Your task to perform on an android device: see sites visited before in the chrome app Image 0: 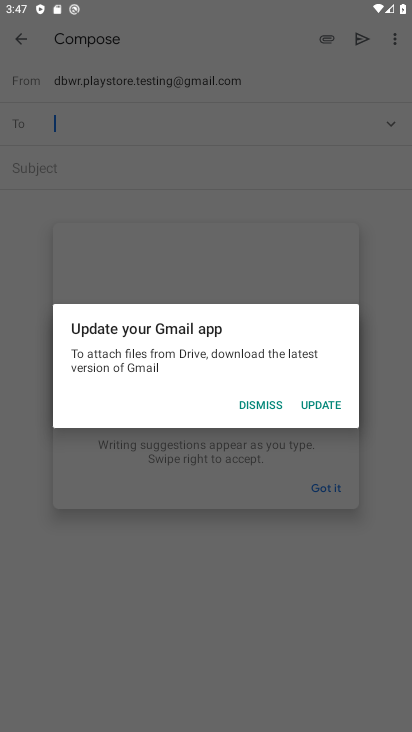
Step 0: press home button
Your task to perform on an android device: see sites visited before in the chrome app Image 1: 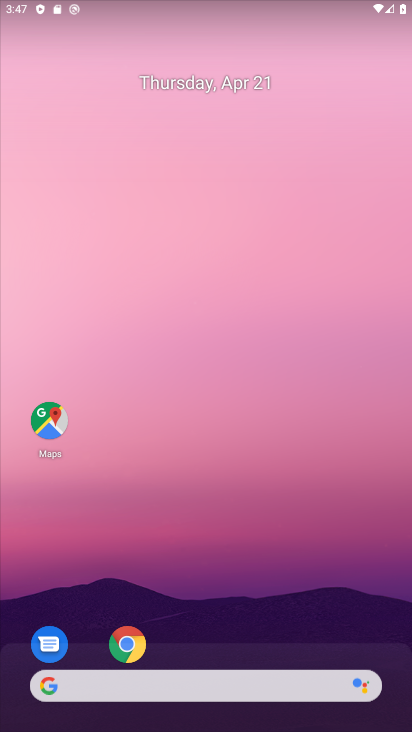
Step 1: drag from (182, 696) to (289, 248)
Your task to perform on an android device: see sites visited before in the chrome app Image 2: 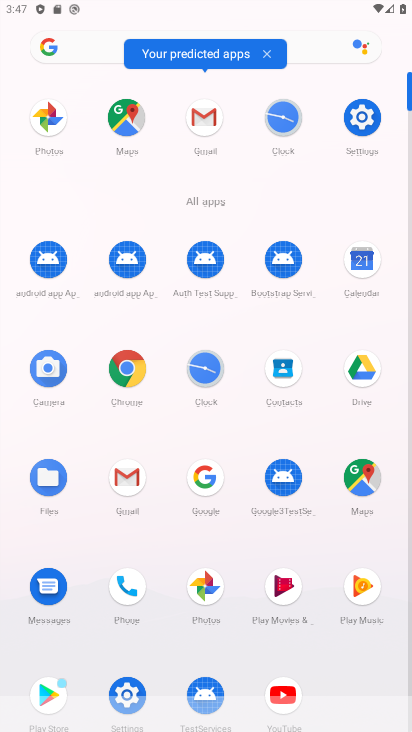
Step 2: click (123, 382)
Your task to perform on an android device: see sites visited before in the chrome app Image 3: 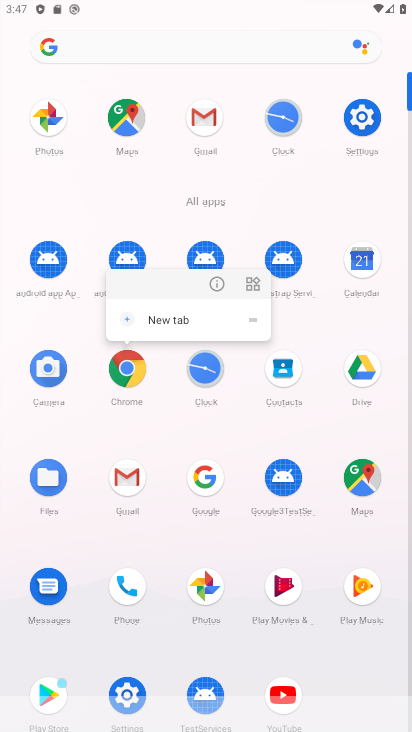
Step 3: click (127, 378)
Your task to perform on an android device: see sites visited before in the chrome app Image 4: 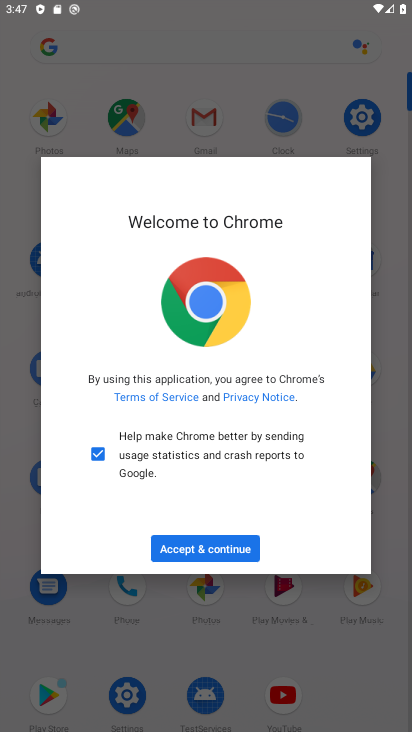
Step 4: click (200, 548)
Your task to perform on an android device: see sites visited before in the chrome app Image 5: 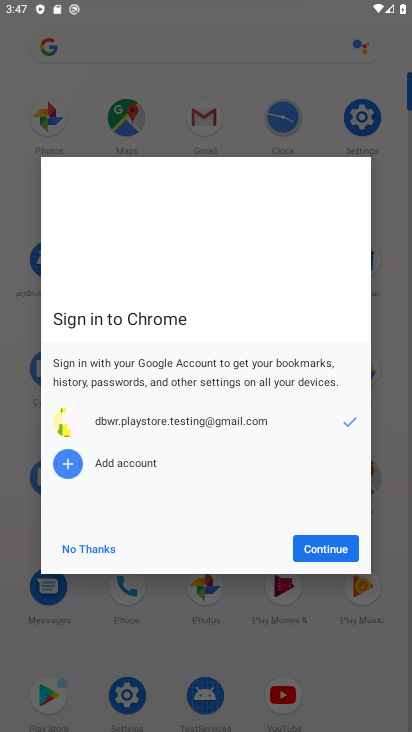
Step 5: click (328, 550)
Your task to perform on an android device: see sites visited before in the chrome app Image 6: 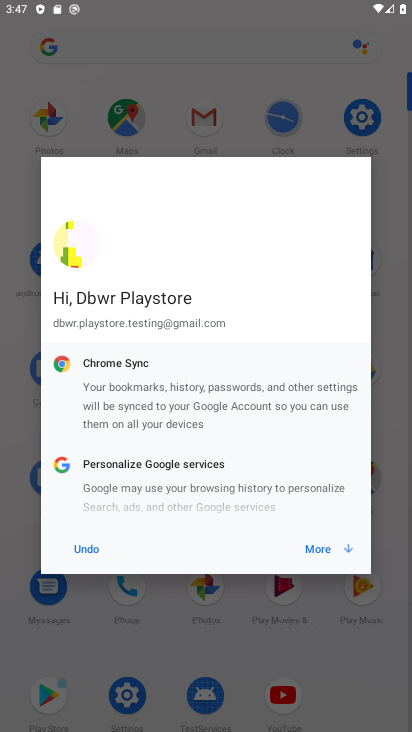
Step 6: click (328, 549)
Your task to perform on an android device: see sites visited before in the chrome app Image 7: 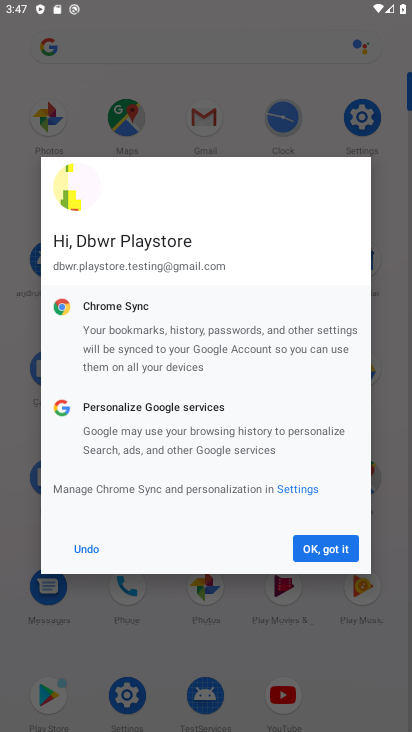
Step 7: click (328, 550)
Your task to perform on an android device: see sites visited before in the chrome app Image 8: 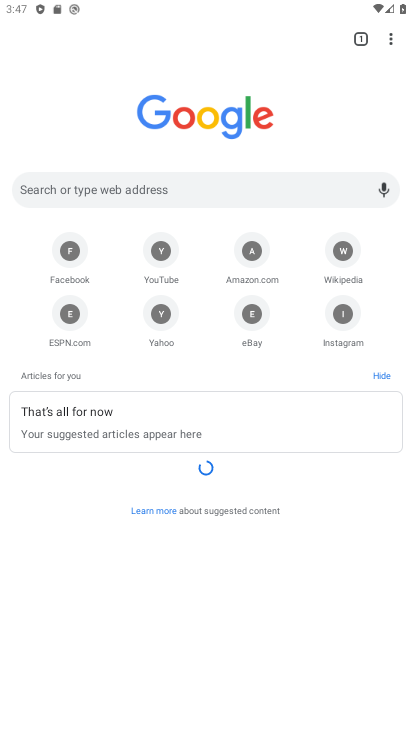
Step 8: click (383, 46)
Your task to perform on an android device: see sites visited before in the chrome app Image 9: 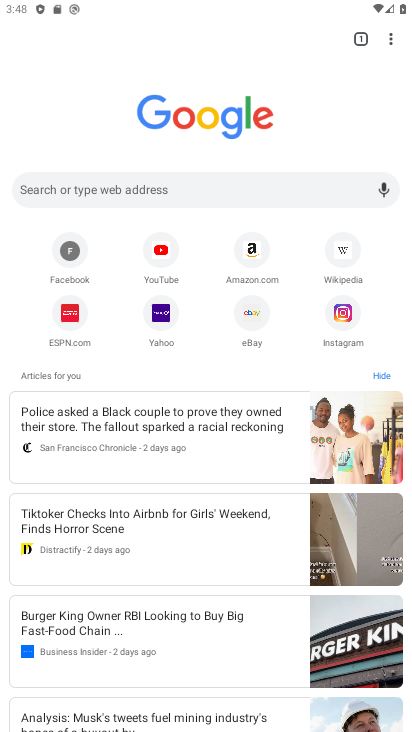
Step 9: click (383, 46)
Your task to perform on an android device: see sites visited before in the chrome app Image 10: 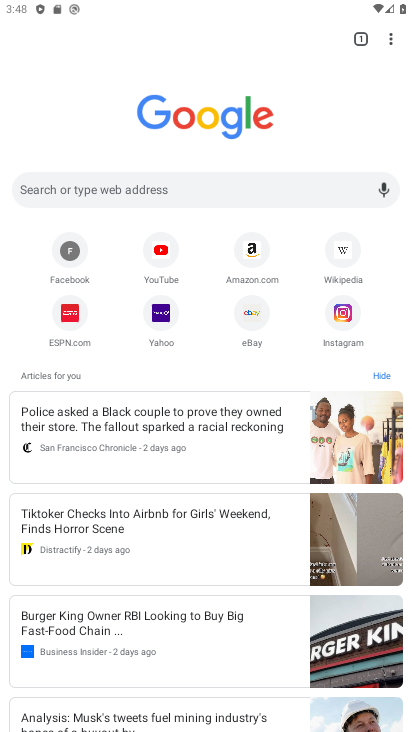
Step 10: click (393, 42)
Your task to perform on an android device: see sites visited before in the chrome app Image 11: 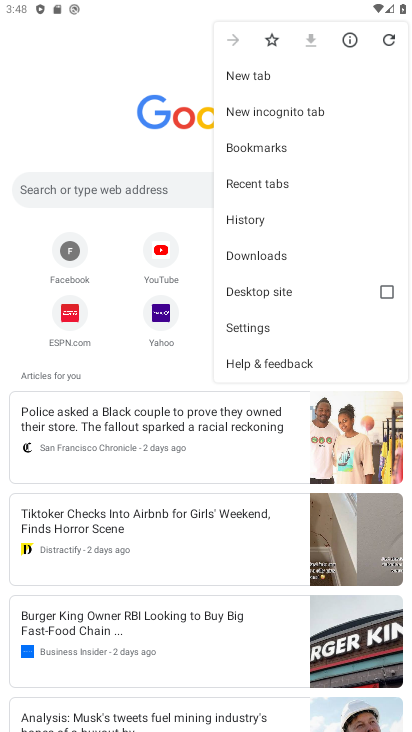
Step 11: click (268, 183)
Your task to perform on an android device: see sites visited before in the chrome app Image 12: 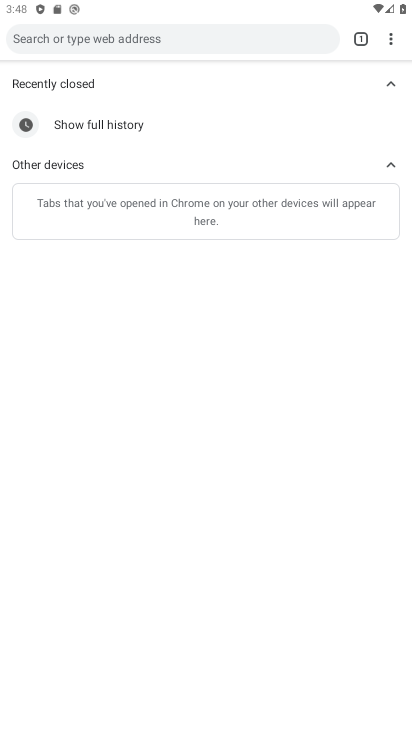
Step 12: task complete